Your task to perform on an android device: Show me popular games on the Play Store Image 0: 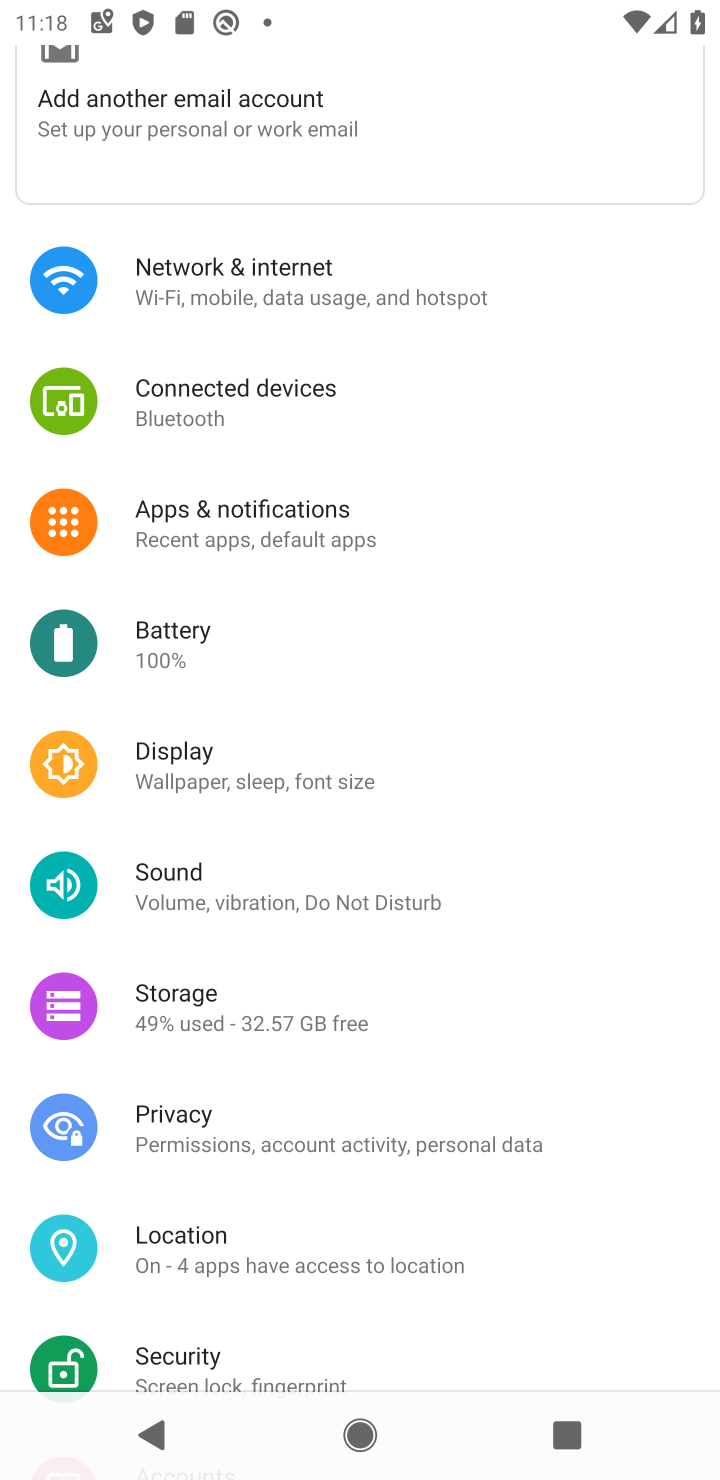
Step 0: press home button
Your task to perform on an android device: Show me popular games on the Play Store Image 1: 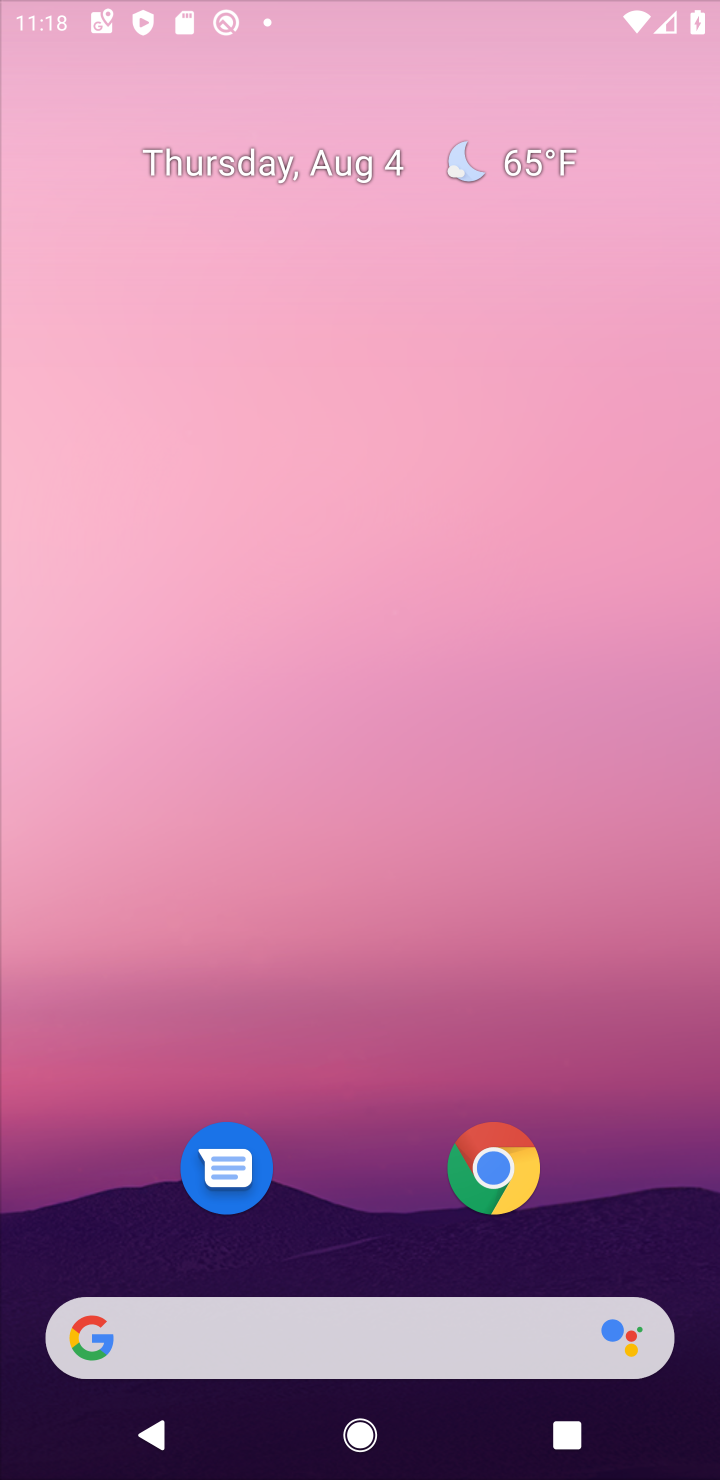
Step 1: drag from (656, 1091) to (479, 16)
Your task to perform on an android device: Show me popular games on the Play Store Image 2: 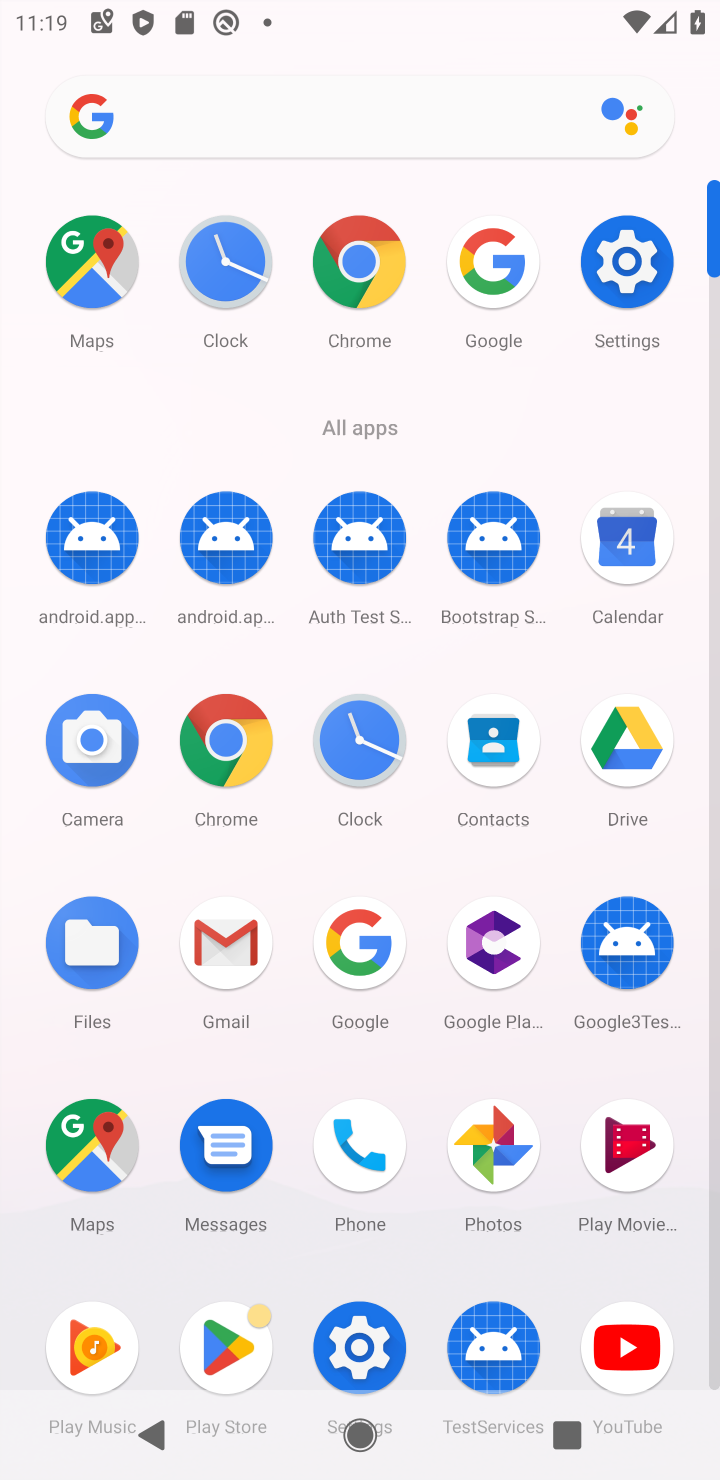
Step 2: click (228, 1327)
Your task to perform on an android device: Show me popular games on the Play Store Image 3: 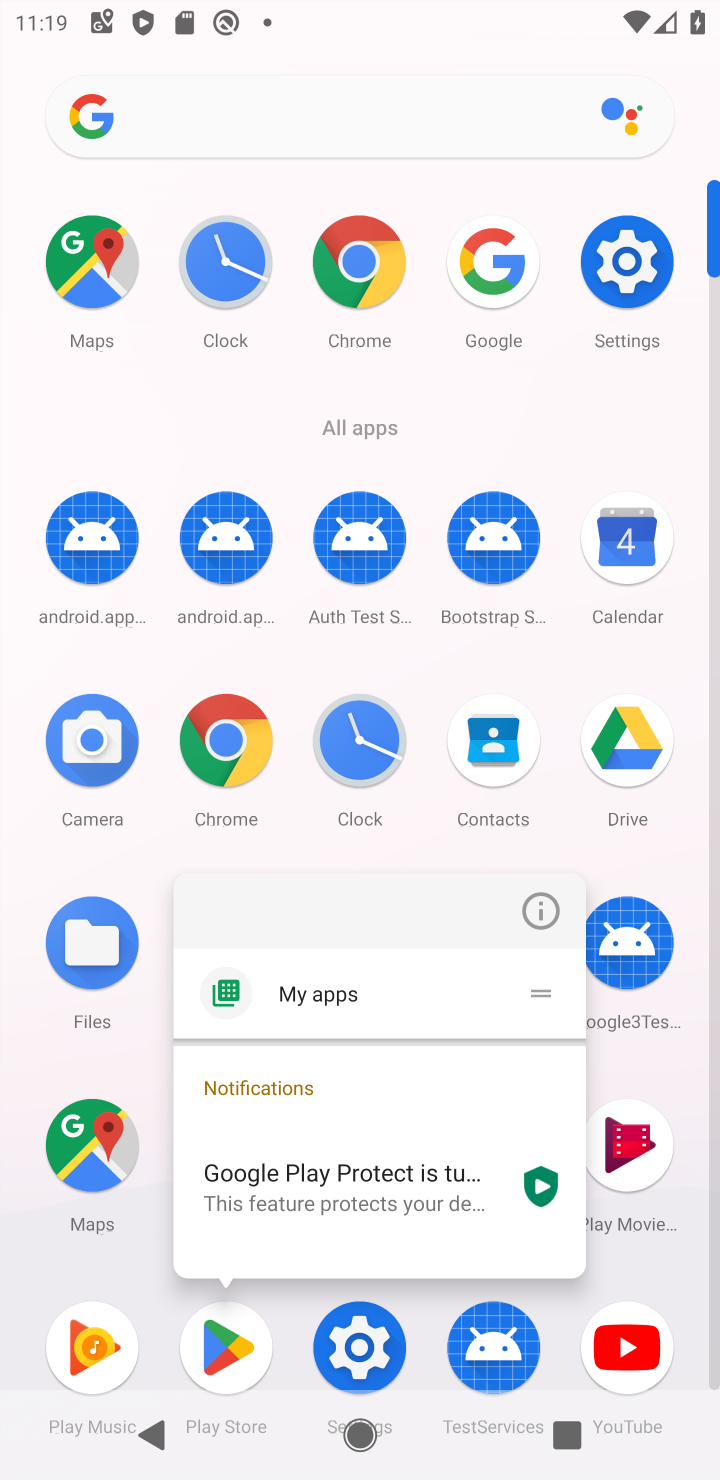
Step 3: click (227, 1325)
Your task to perform on an android device: Show me popular games on the Play Store Image 4: 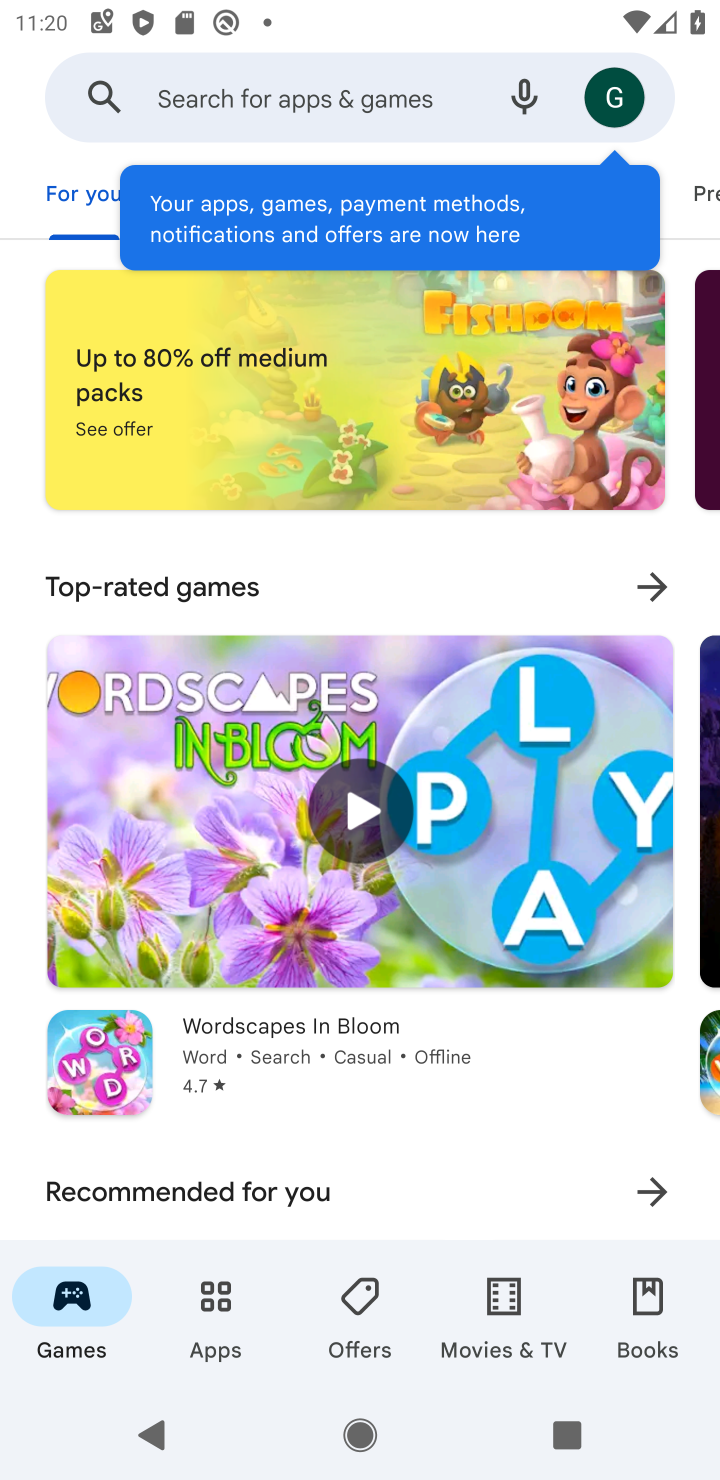
Step 4: task complete